Your task to perform on an android device: change the clock display to show seconds Image 0: 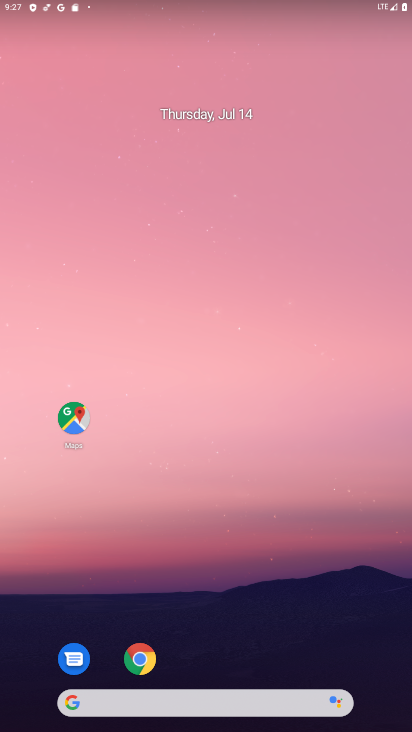
Step 0: drag from (351, 645) to (324, 255)
Your task to perform on an android device: change the clock display to show seconds Image 1: 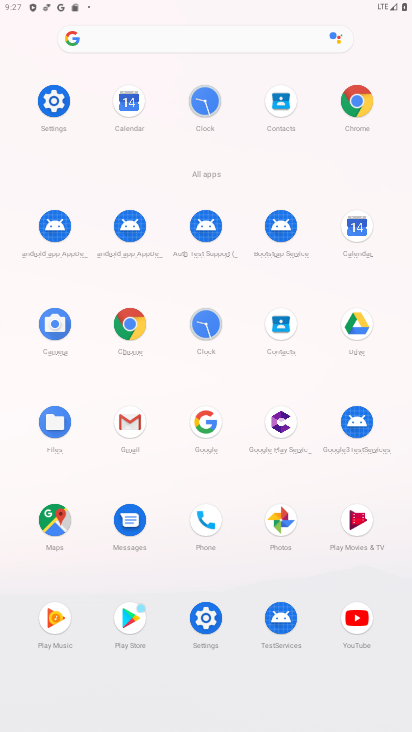
Step 1: click (202, 327)
Your task to perform on an android device: change the clock display to show seconds Image 2: 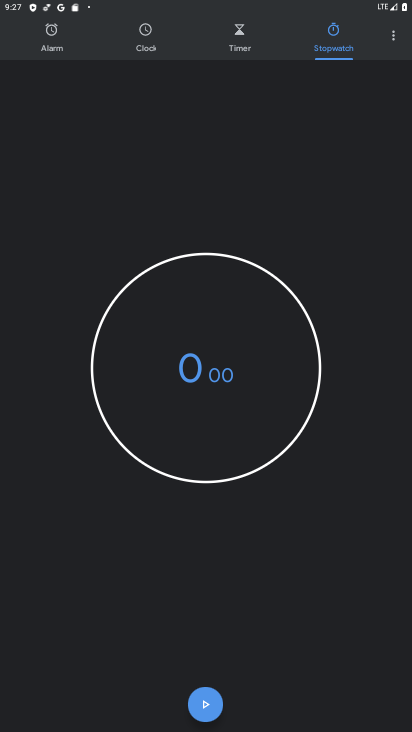
Step 2: click (396, 52)
Your task to perform on an android device: change the clock display to show seconds Image 3: 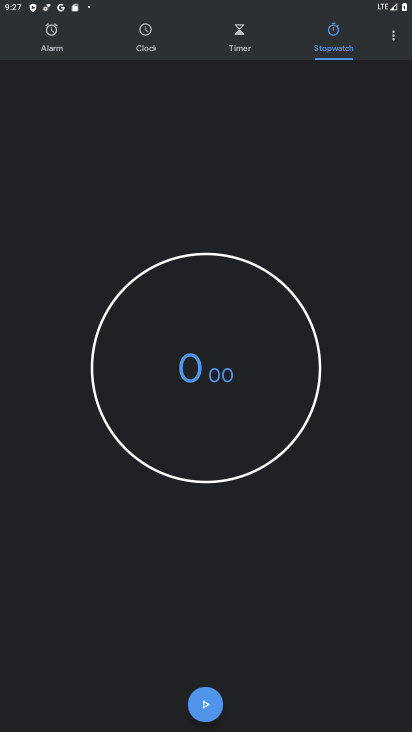
Step 3: click (391, 41)
Your task to perform on an android device: change the clock display to show seconds Image 4: 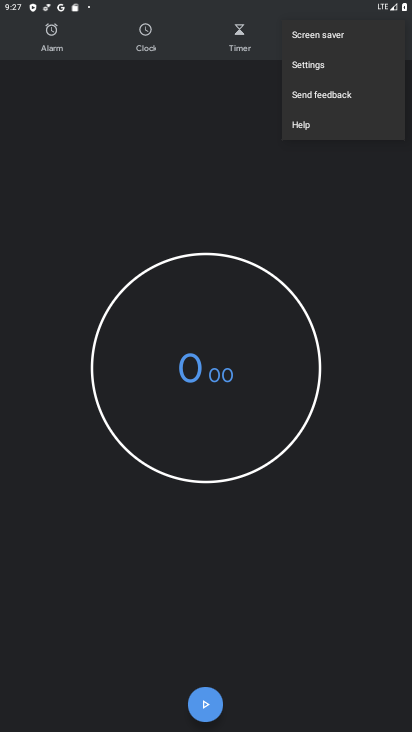
Step 4: click (300, 65)
Your task to perform on an android device: change the clock display to show seconds Image 5: 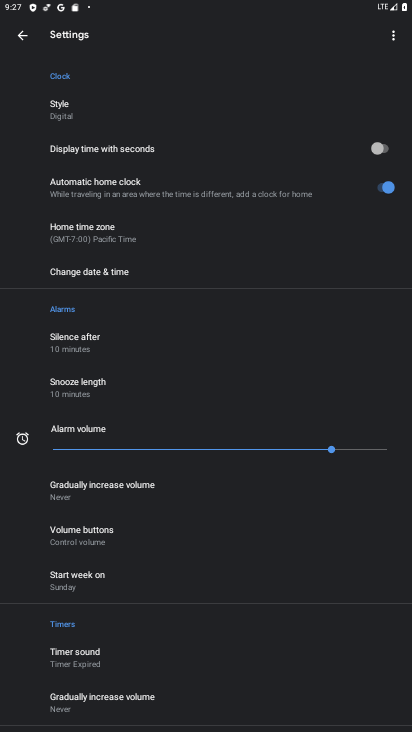
Step 5: click (373, 152)
Your task to perform on an android device: change the clock display to show seconds Image 6: 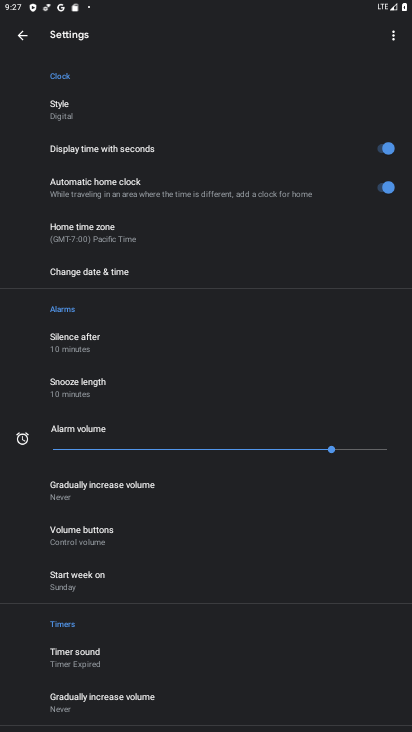
Step 6: task complete